Your task to perform on an android device: open chrome privacy settings Image 0: 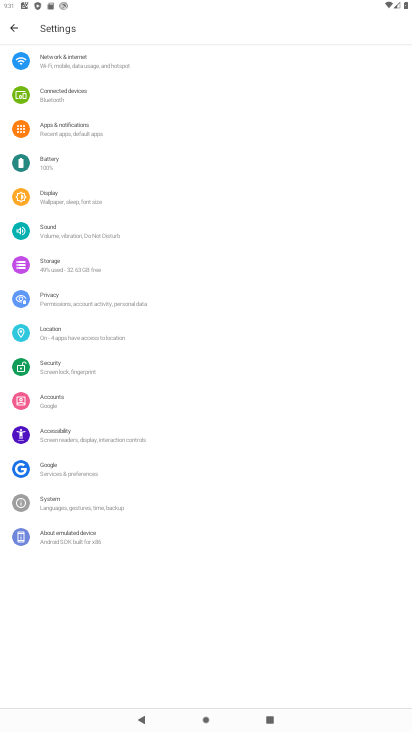
Step 0: press home button
Your task to perform on an android device: open chrome privacy settings Image 1: 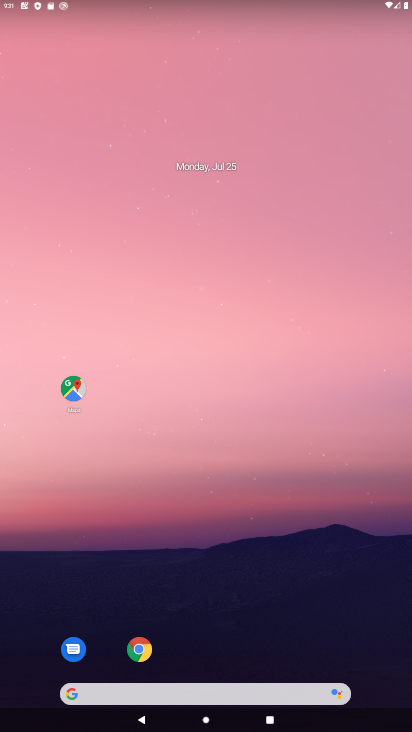
Step 1: drag from (278, 569) to (151, 8)
Your task to perform on an android device: open chrome privacy settings Image 2: 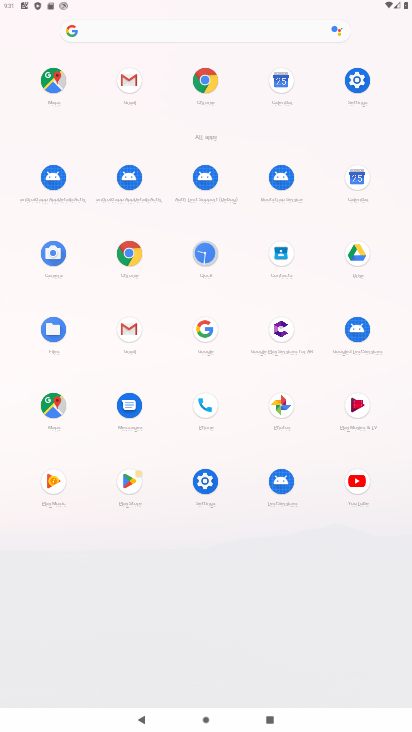
Step 2: click (210, 78)
Your task to perform on an android device: open chrome privacy settings Image 3: 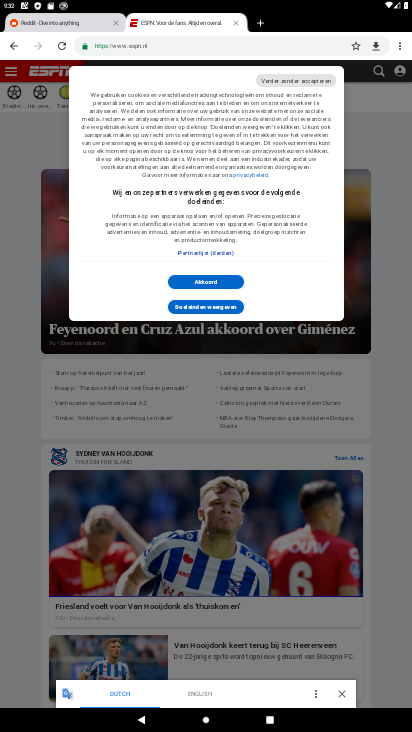
Step 3: drag from (398, 38) to (303, 304)
Your task to perform on an android device: open chrome privacy settings Image 4: 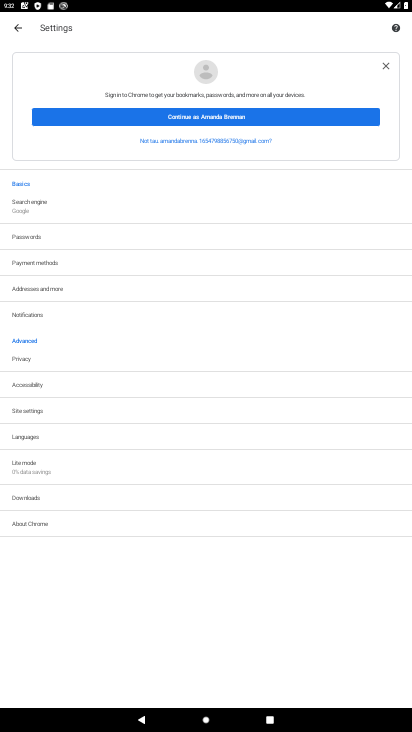
Step 4: click (42, 356)
Your task to perform on an android device: open chrome privacy settings Image 5: 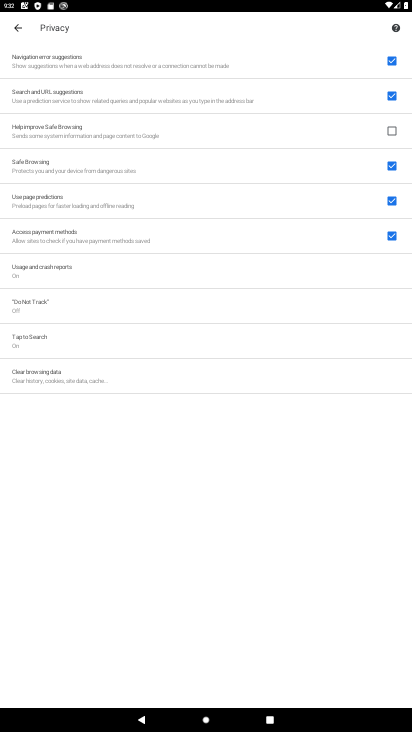
Step 5: task complete